Your task to perform on an android device: turn off location history Image 0: 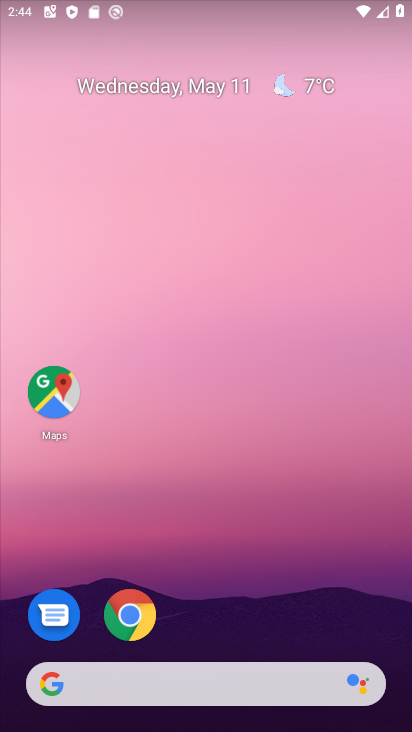
Step 0: drag from (298, 572) to (228, 7)
Your task to perform on an android device: turn off location history Image 1: 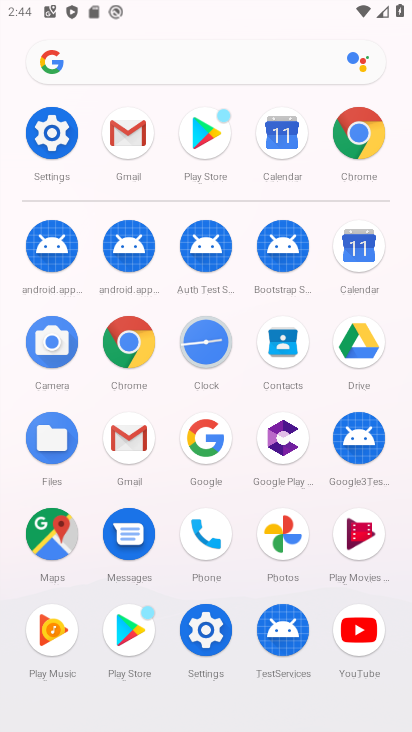
Step 1: click (63, 148)
Your task to perform on an android device: turn off location history Image 2: 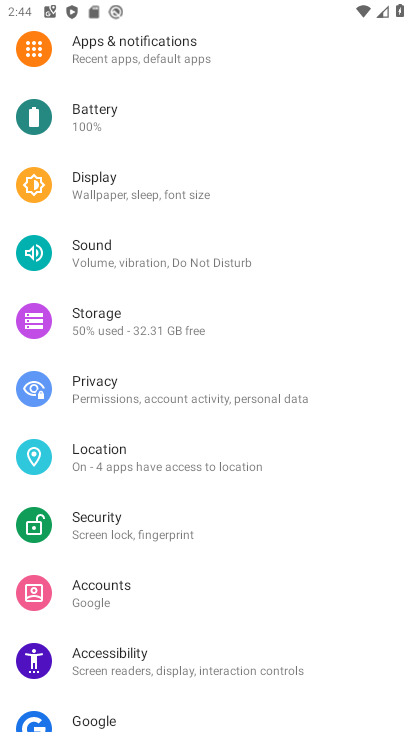
Step 2: drag from (221, 644) to (227, 68)
Your task to perform on an android device: turn off location history Image 3: 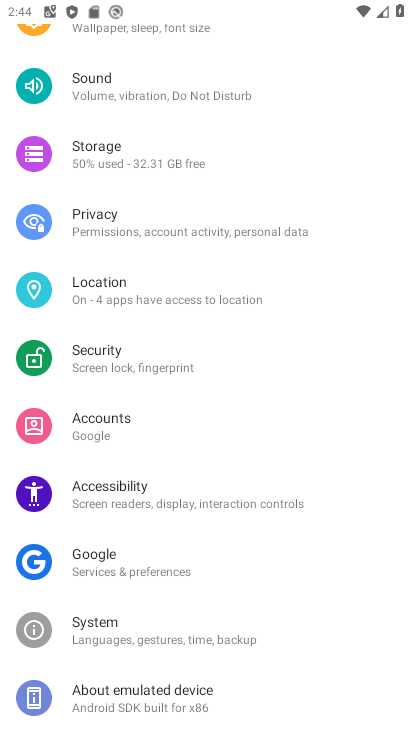
Step 3: click (153, 296)
Your task to perform on an android device: turn off location history Image 4: 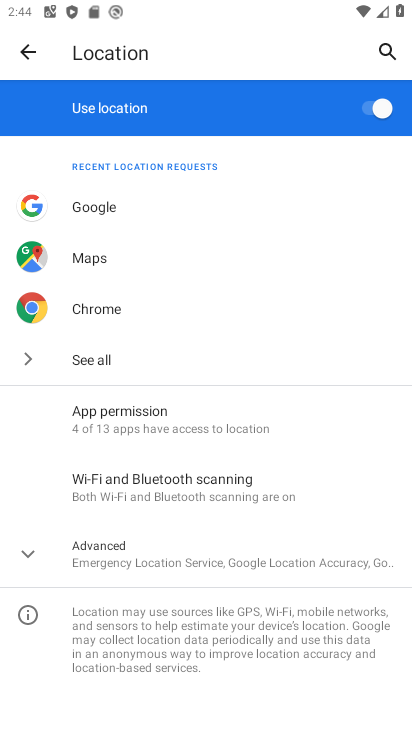
Step 4: click (185, 551)
Your task to perform on an android device: turn off location history Image 5: 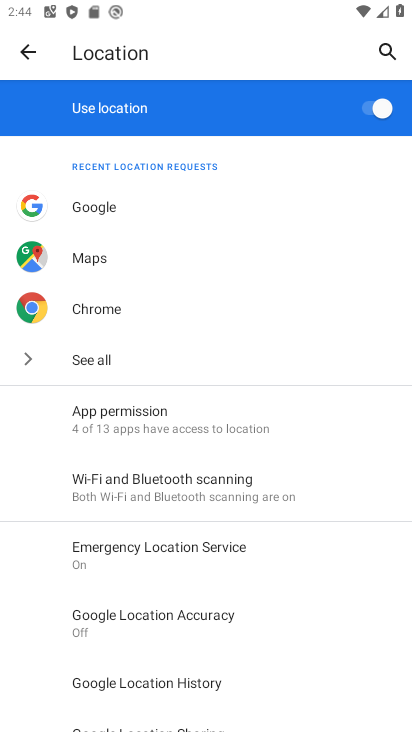
Step 5: click (212, 684)
Your task to perform on an android device: turn off location history Image 6: 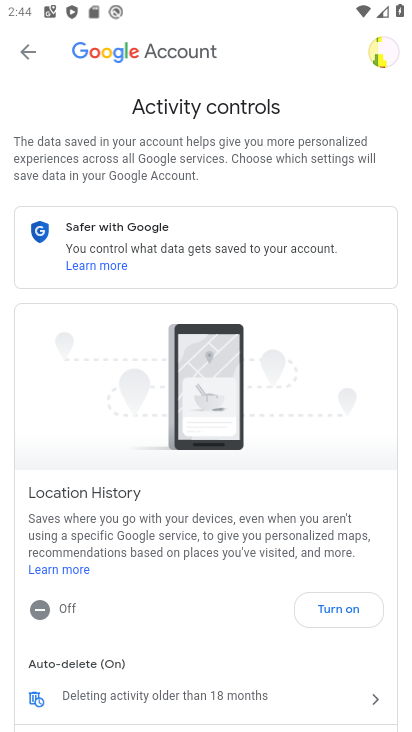
Step 6: task complete